Your task to perform on an android device: Show me recent news Image 0: 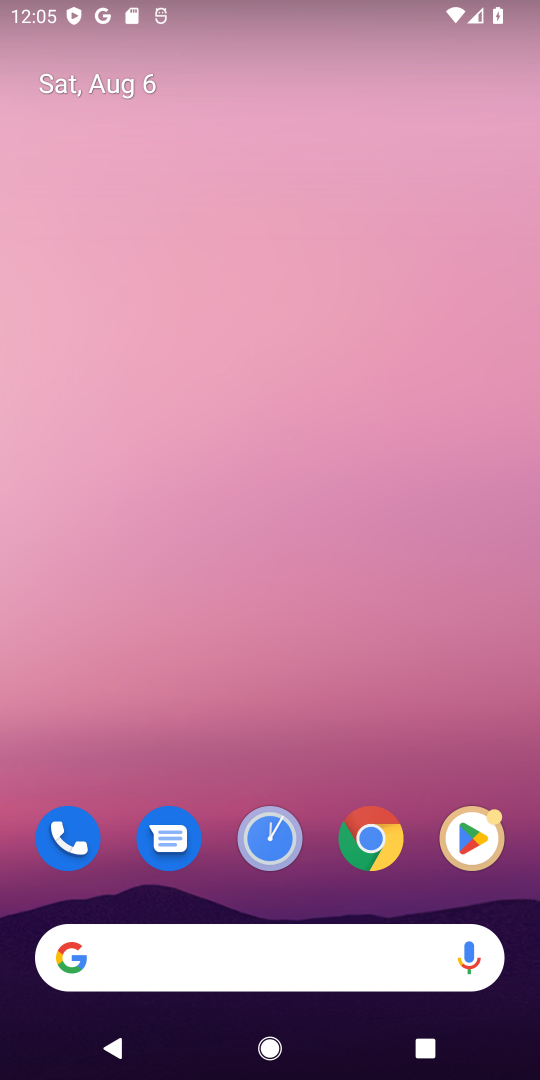
Step 0: click (235, 939)
Your task to perform on an android device: Show me recent news Image 1: 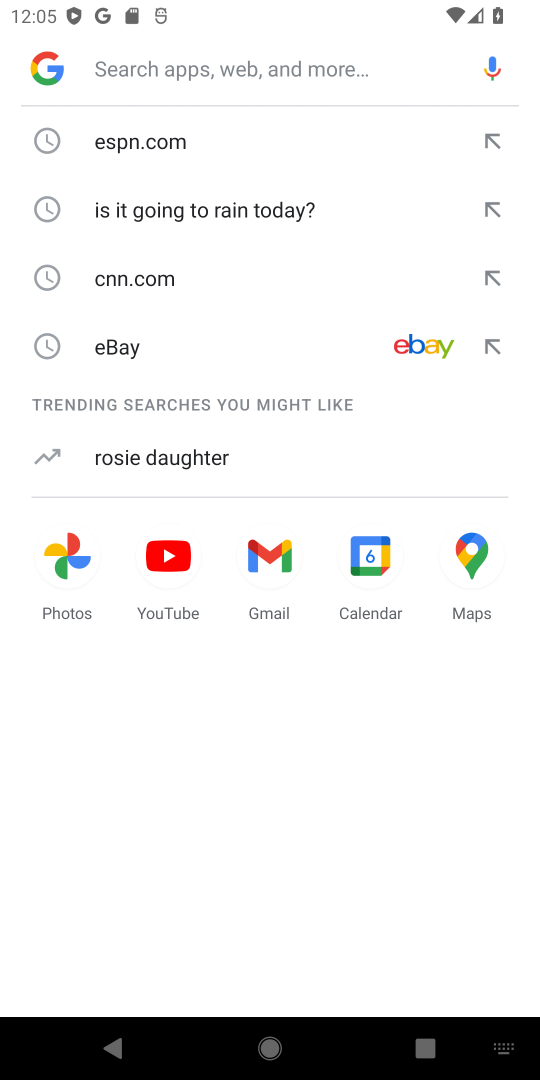
Step 1: type "recent news"
Your task to perform on an android device: Show me recent news Image 2: 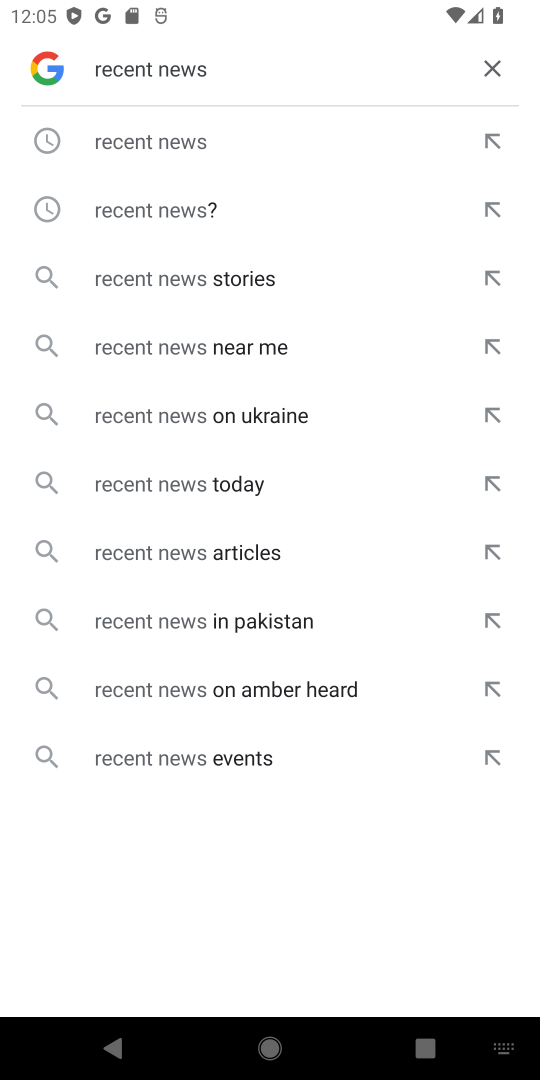
Step 2: click (200, 137)
Your task to perform on an android device: Show me recent news Image 3: 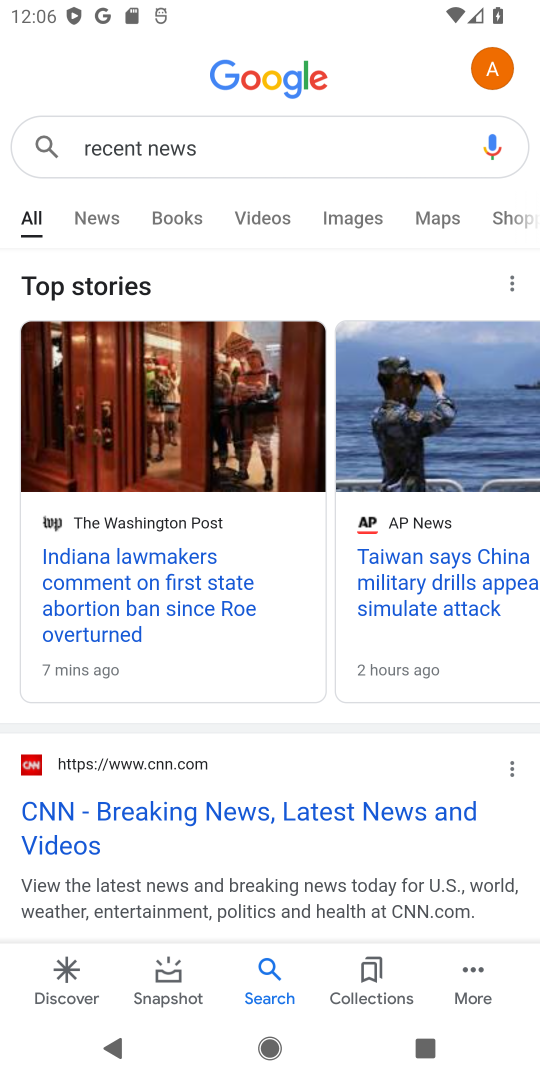
Step 3: click (82, 214)
Your task to perform on an android device: Show me recent news Image 4: 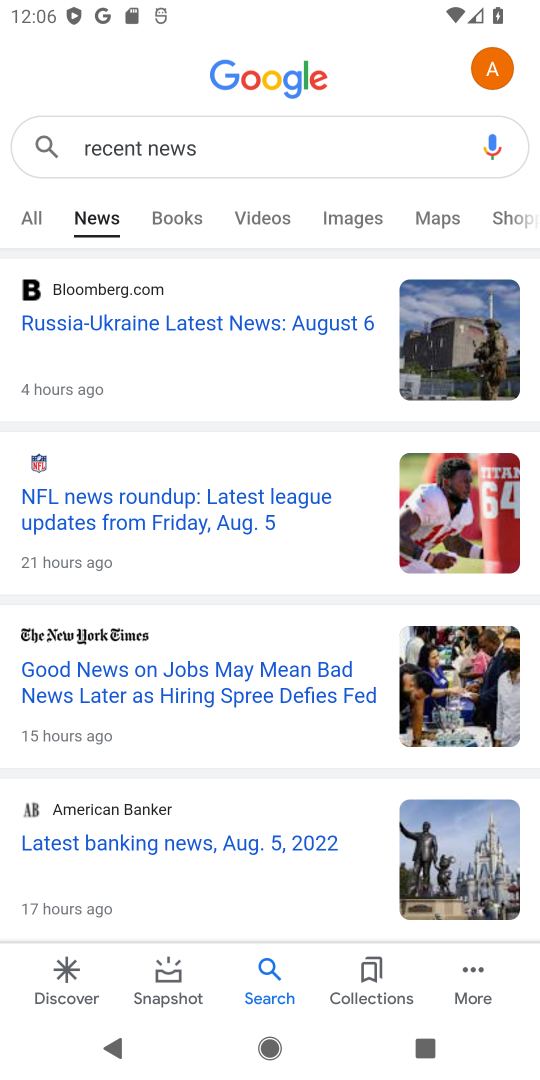
Step 4: task complete